Your task to perform on an android device: open the mobile data screen to see how much data has been used Image 0: 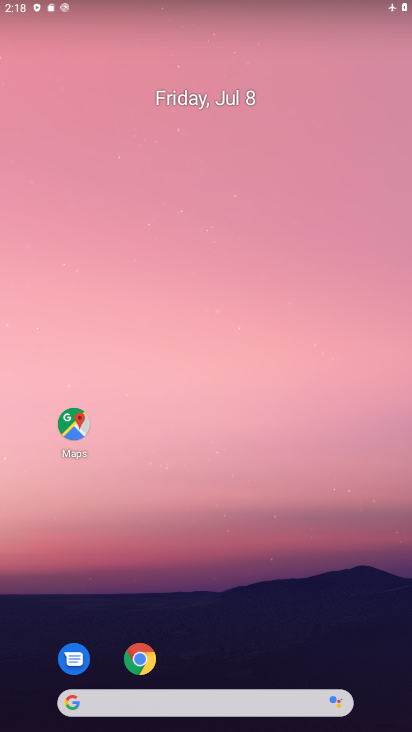
Step 0: drag from (244, 614) to (326, 179)
Your task to perform on an android device: open the mobile data screen to see how much data has been used Image 1: 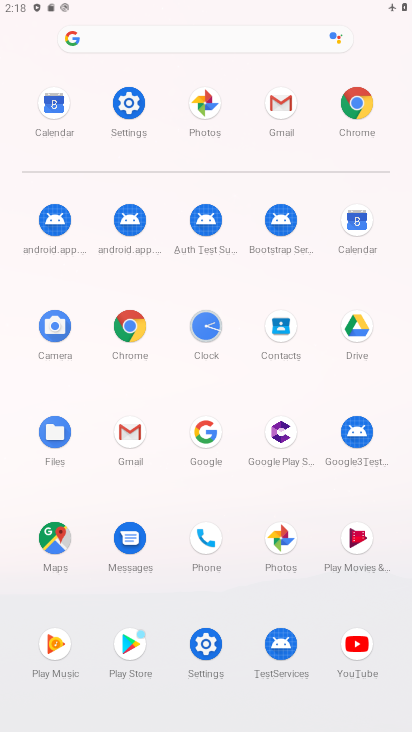
Step 1: click (206, 646)
Your task to perform on an android device: open the mobile data screen to see how much data has been used Image 2: 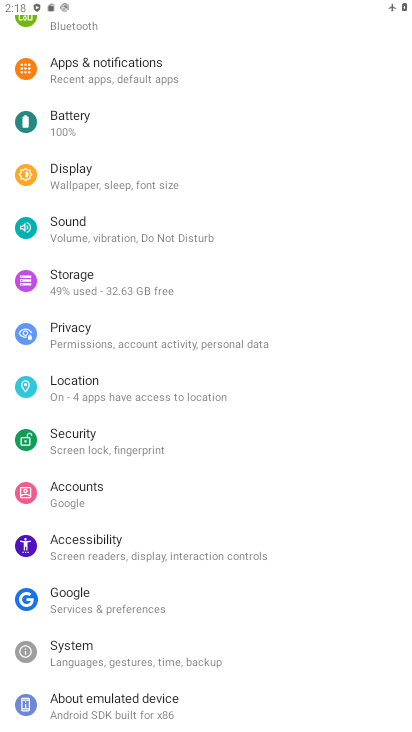
Step 2: drag from (189, 484) to (286, 476)
Your task to perform on an android device: open the mobile data screen to see how much data has been used Image 3: 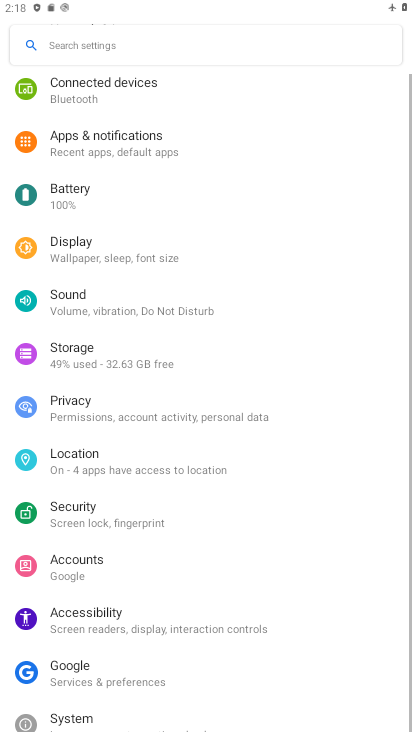
Step 3: drag from (292, 154) to (191, 482)
Your task to perform on an android device: open the mobile data screen to see how much data has been used Image 4: 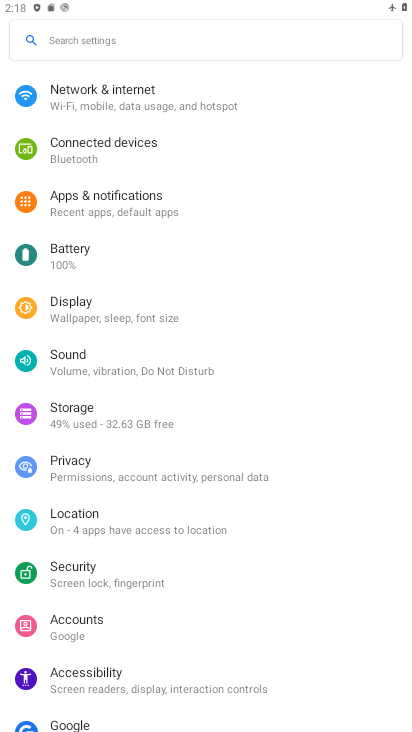
Step 4: click (242, 110)
Your task to perform on an android device: open the mobile data screen to see how much data has been used Image 5: 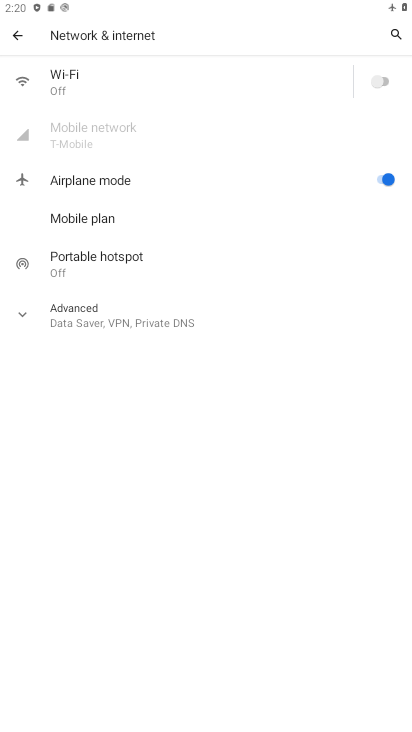
Step 5: task complete